Your task to perform on an android device: turn off notifications in google photos Image 0: 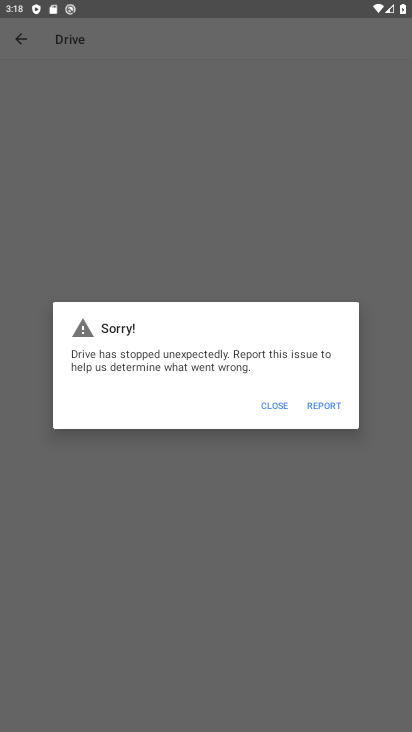
Step 0: press home button
Your task to perform on an android device: turn off notifications in google photos Image 1: 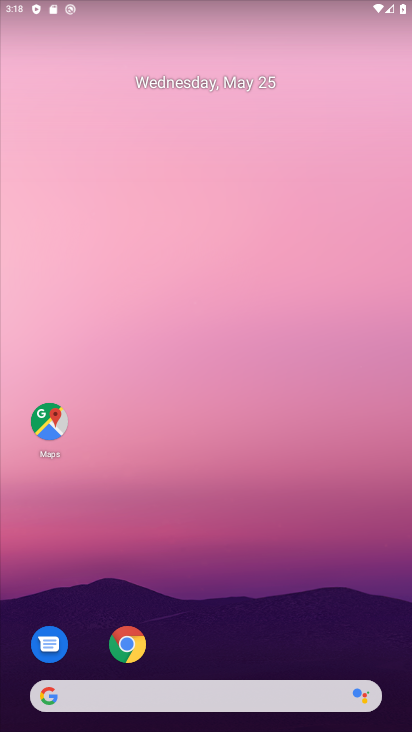
Step 1: drag from (269, 647) to (256, 5)
Your task to perform on an android device: turn off notifications in google photos Image 2: 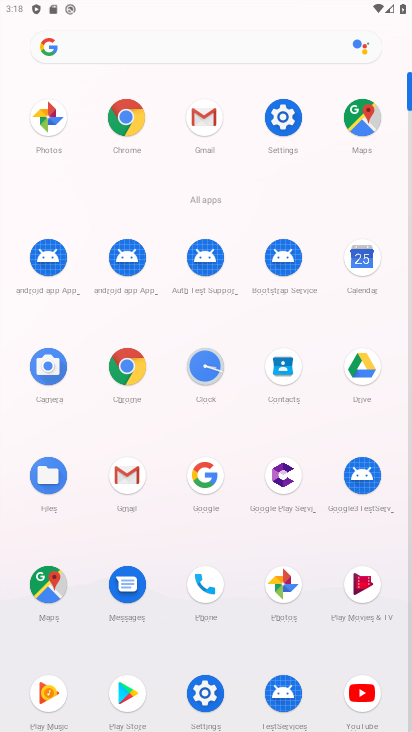
Step 2: click (284, 588)
Your task to perform on an android device: turn off notifications in google photos Image 3: 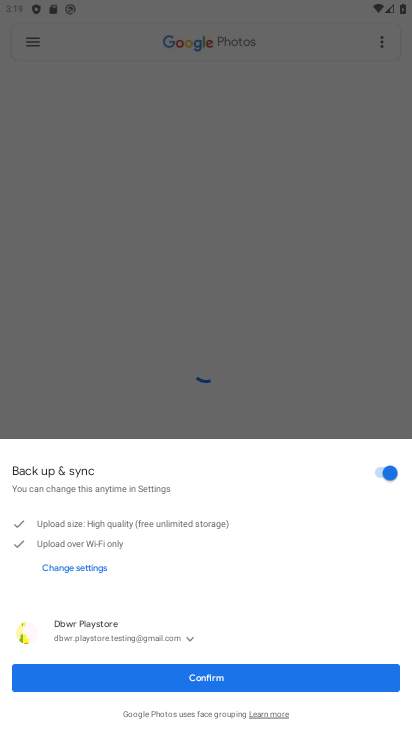
Step 3: click (247, 674)
Your task to perform on an android device: turn off notifications in google photos Image 4: 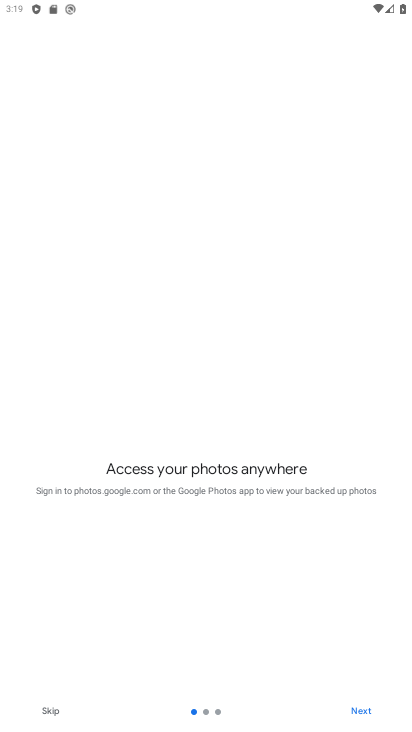
Step 4: click (53, 714)
Your task to perform on an android device: turn off notifications in google photos Image 5: 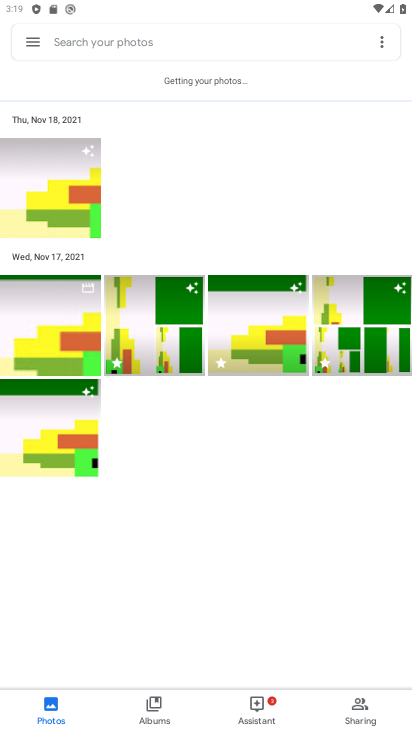
Step 5: click (27, 42)
Your task to perform on an android device: turn off notifications in google photos Image 6: 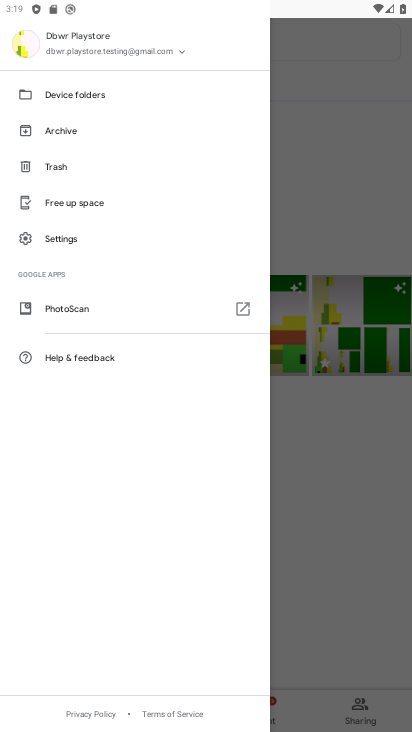
Step 6: click (64, 235)
Your task to perform on an android device: turn off notifications in google photos Image 7: 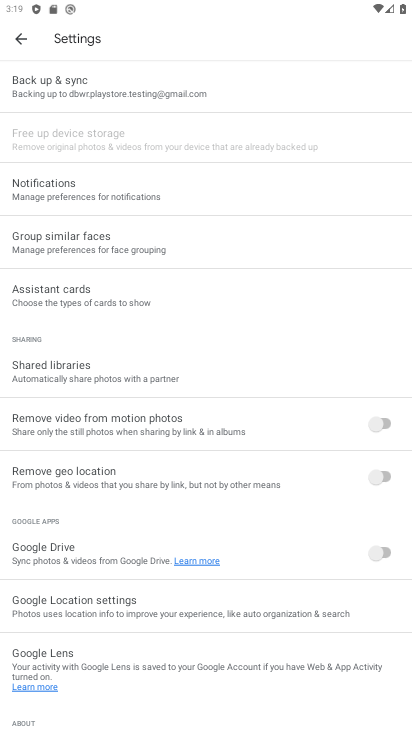
Step 7: click (53, 198)
Your task to perform on an android device: turn off notifications in google photos Image 8: 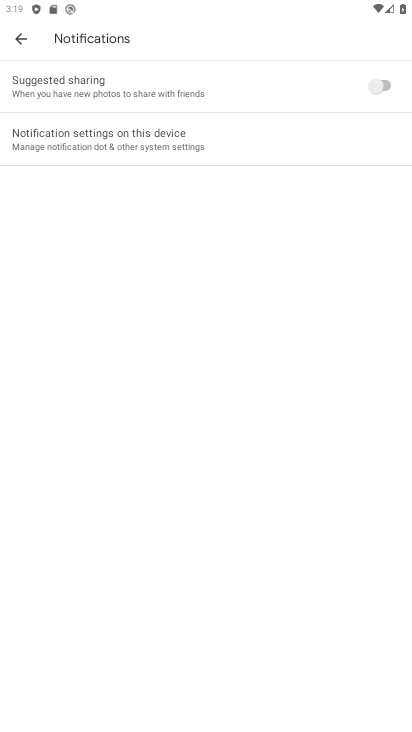
Step 8: click (72, 141)
Your task to perform on an android device: turn off notifications in google photos Image 9: 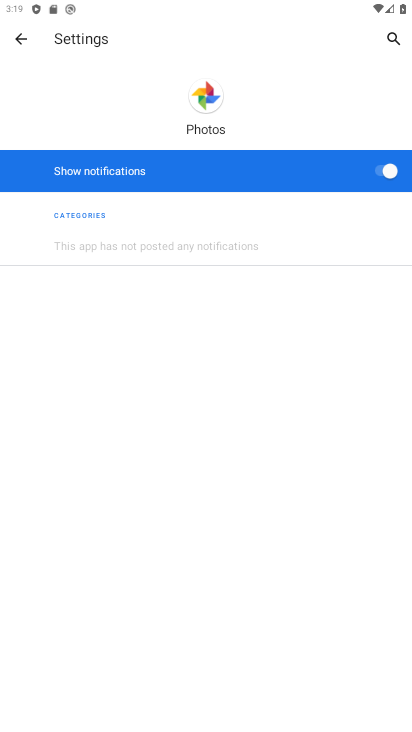
Step 9: click (385, 175)
Your task to perform on an android device: turn off notifications in google photos Image 10: 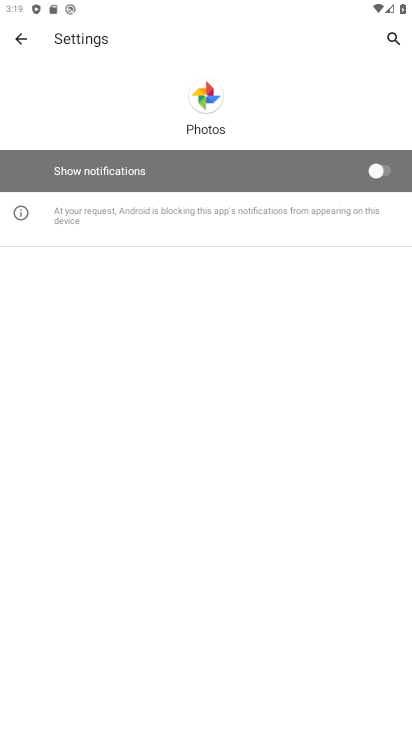
Step 10: task complete